Your task to perform on an android device: Add "usb-a" to the cart on walmart Image 0: 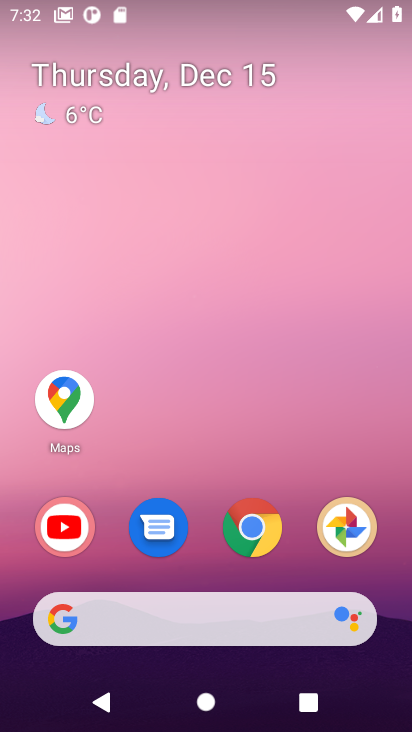
Step 0: click (246, 536)
Your task to perform on an android device: Add "usb-a" to the cart on walmart Image 1: 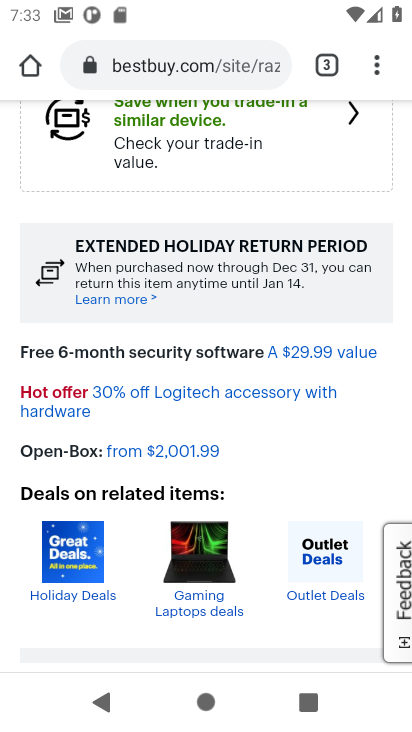
Step 1: click (176, 61)
Your task to perform on an android device: Add "usb-a" to the cart on walmart Image 2: 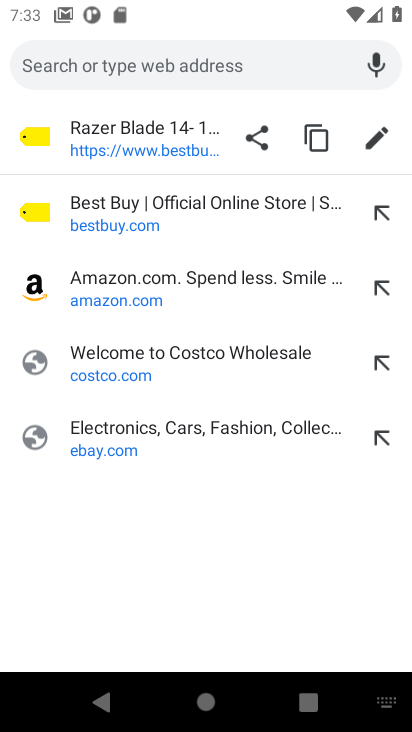
Step 2: type "walmart"
Your task to perform on an android device: Add "usb-a" to the cart on walmart Image 3: 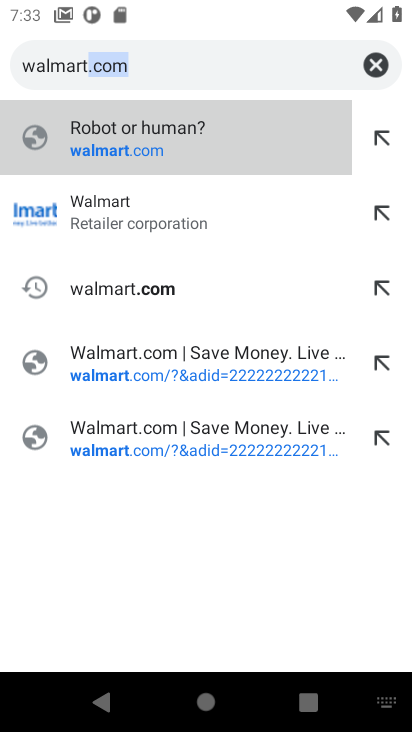
Step 3: click (95, 151)
Your task to perform on an android device: Add "usb-a" to the cart on walmart Image 4: 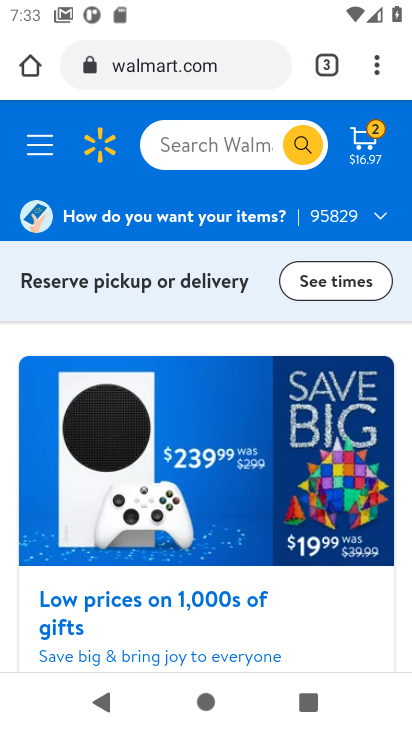
Step 4: click (186, 144)
Your task to perform on an android device: Add "usb-a" to the cart on walmart Image 5: 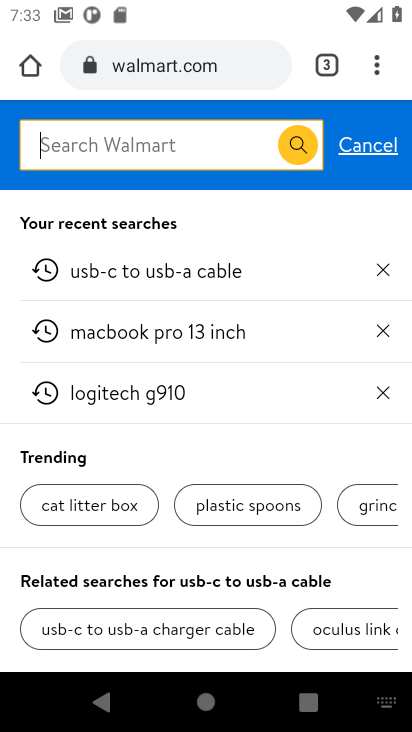
Step 5: type ""
Your task to perform on an android device: Add "usb-a" to the cart on walmart Image 6: 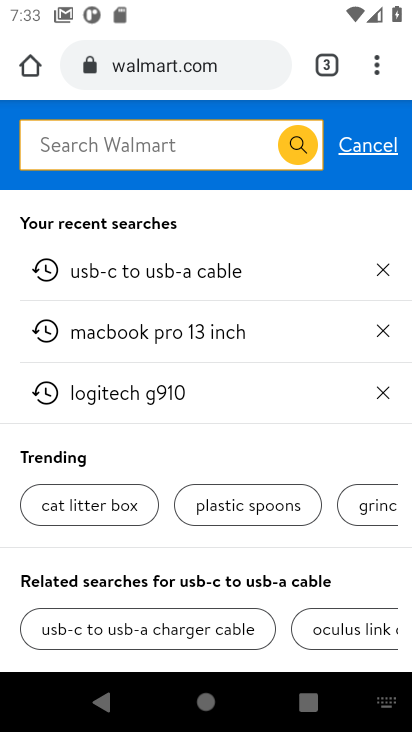
Step 6: type "usb-a"
Your task to perform on an android device: Add "usb-a" to the cart on walmart Image 7: 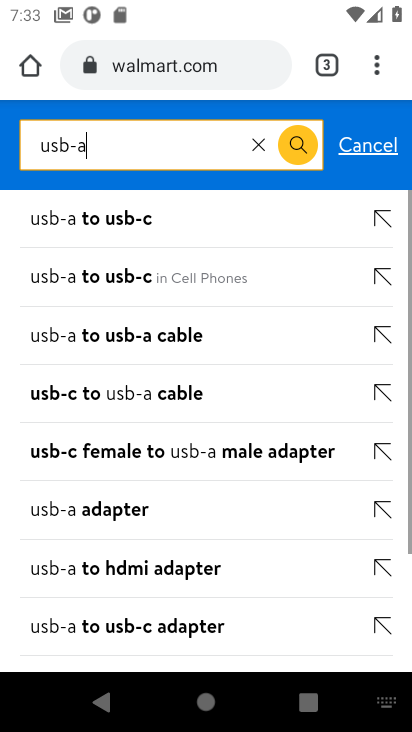
Step 7: click (162, 516)
Your task to perform on an android device: Add "usb-a" to the cart on walmart Image 8: 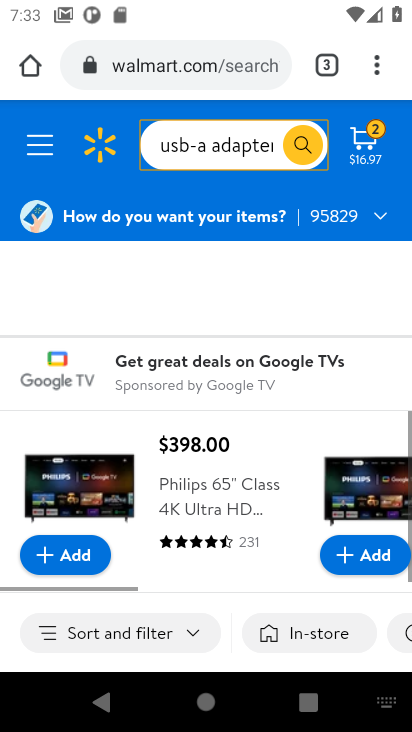
Step 8: click (24, 549)
Your task to perform on an android device: Add "usb-a" to the cart on walmart Image 9: 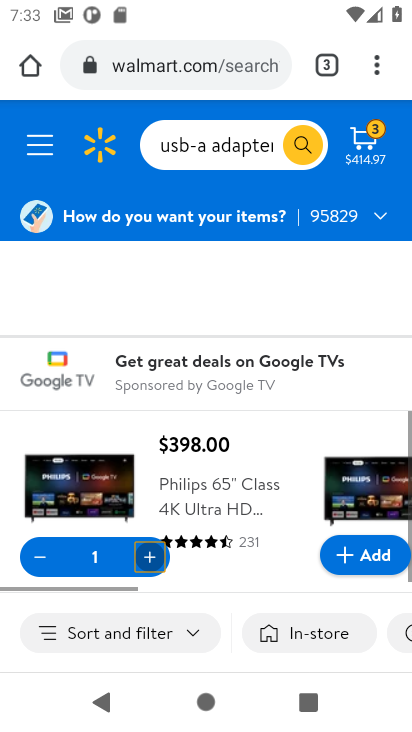
Step 9: task complete